Your task to perform on an android device: Search for "macbook pro 15 inch" on target, select the first entry, and add it to the cart. Image 0: 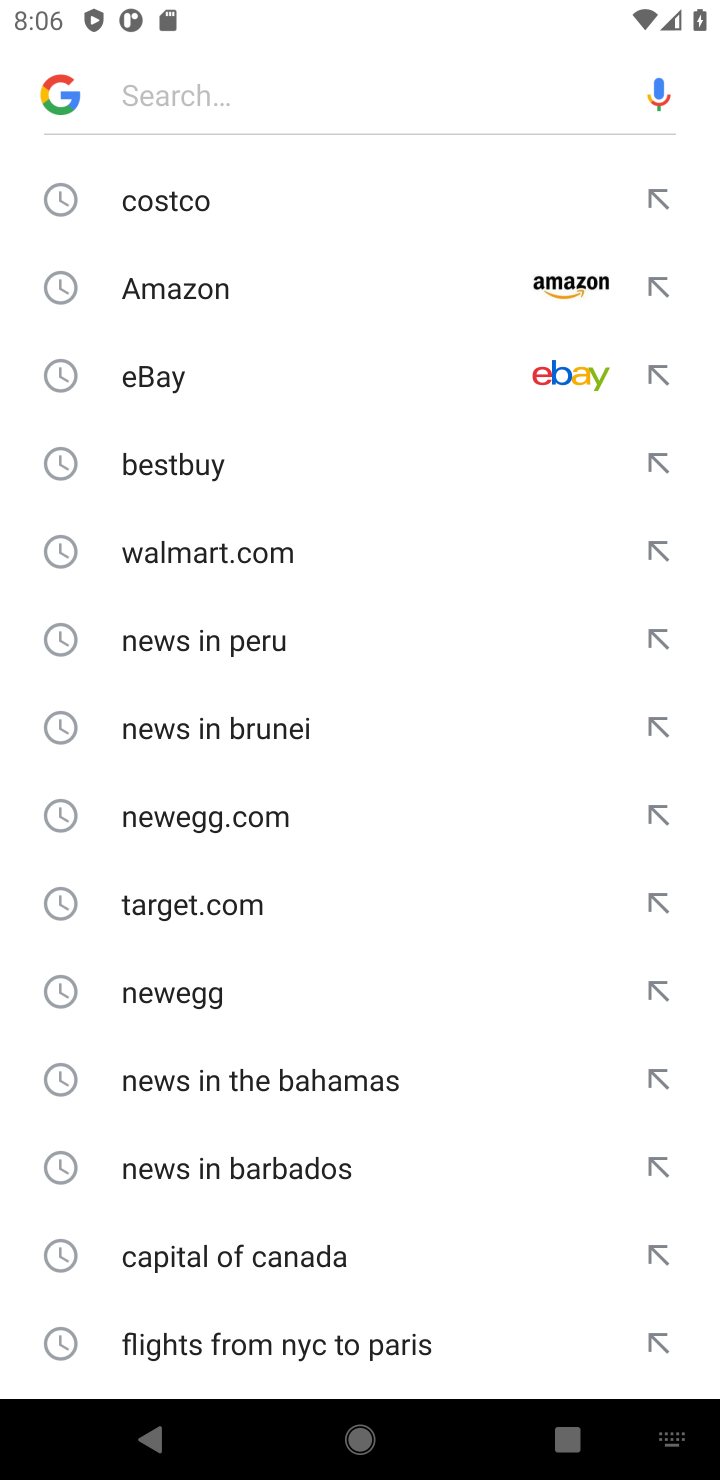
Step 0: click (200, 907)
Your task to perform on an android device: Search for "macbook pro 15 inch" on target, select the first entry, and add it to the cart. Image 1: 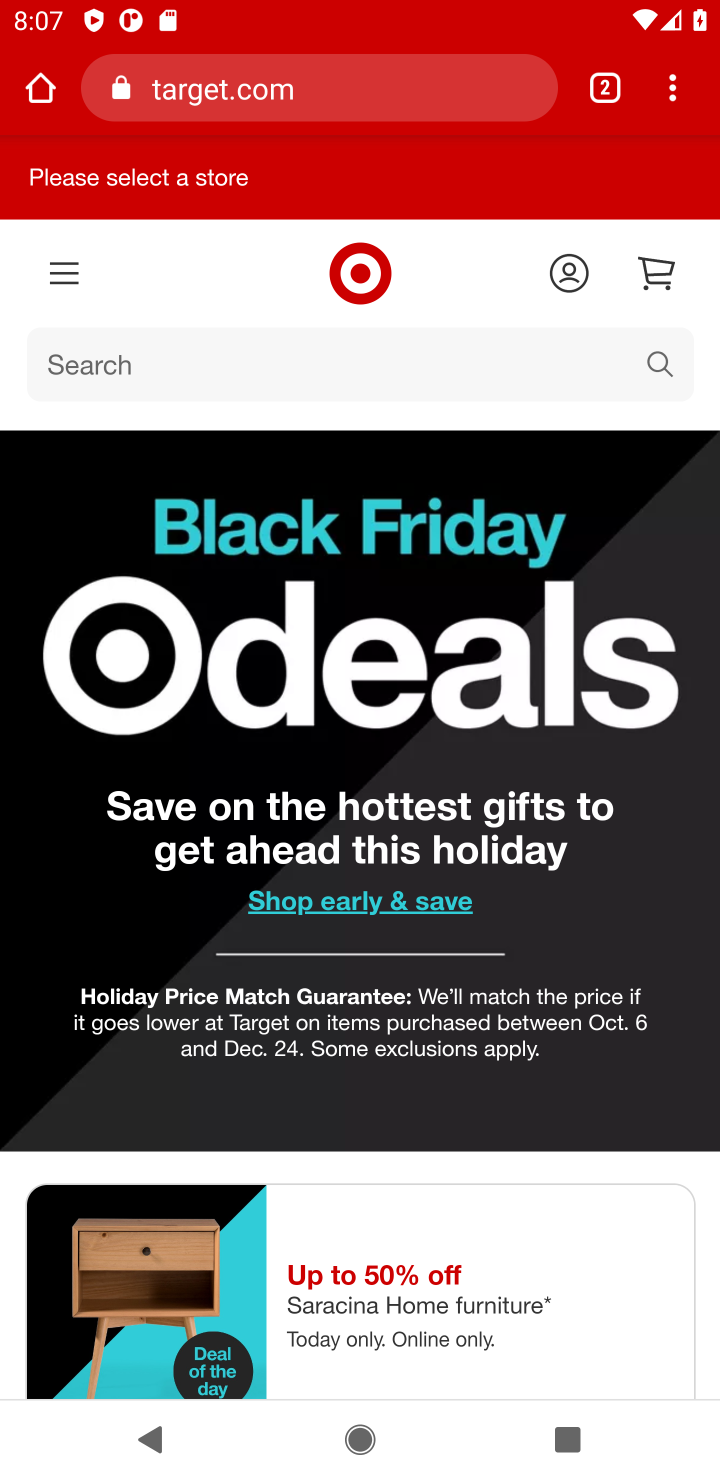
Step 1: click (155, 355)
Your task to perform on an android device: Search for "macbook pro 15 inch" on target, select the first entry, and add it to the cart. Image 2: 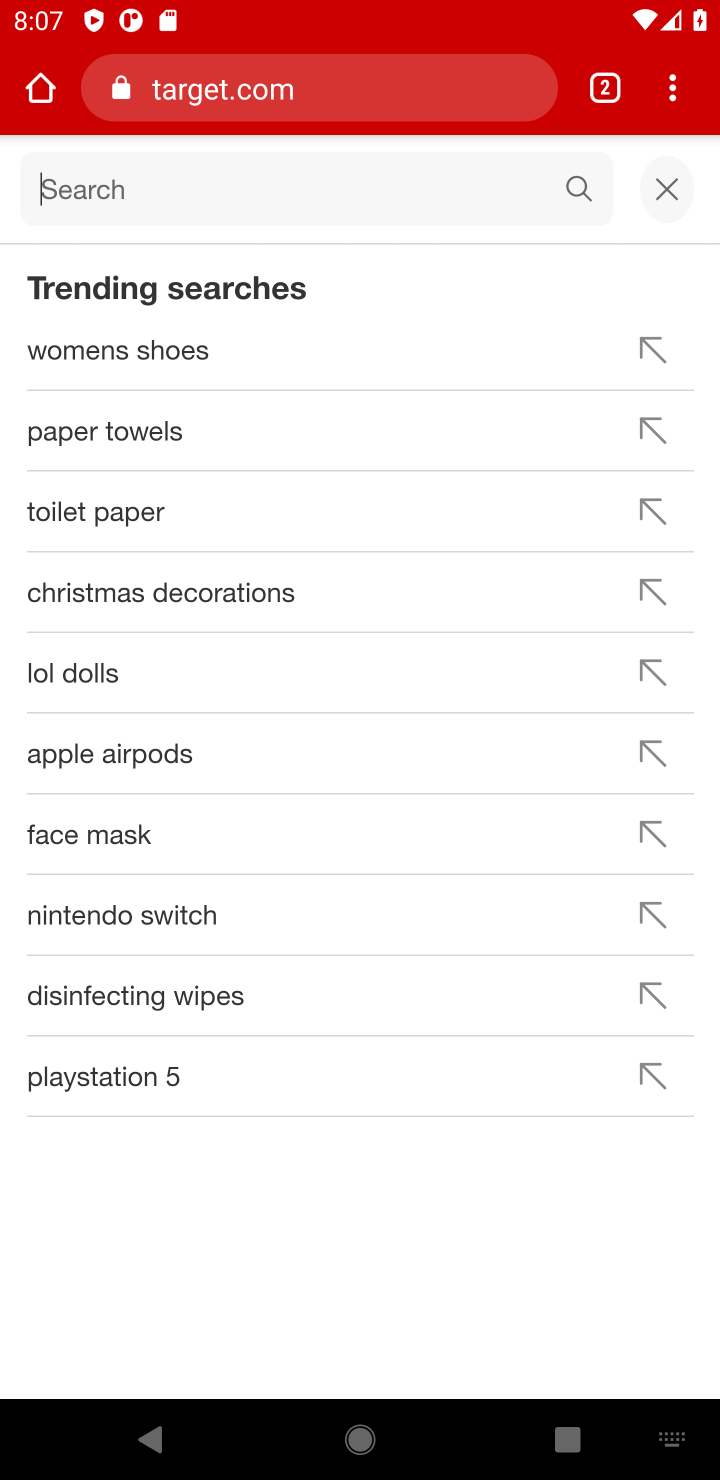
Step 2: type "macbook pro 15 inch"
Your task to perform on an android device: Search for "macbook pro 15 inch" on target, select the first entry, and add it to the cart. Image 3: 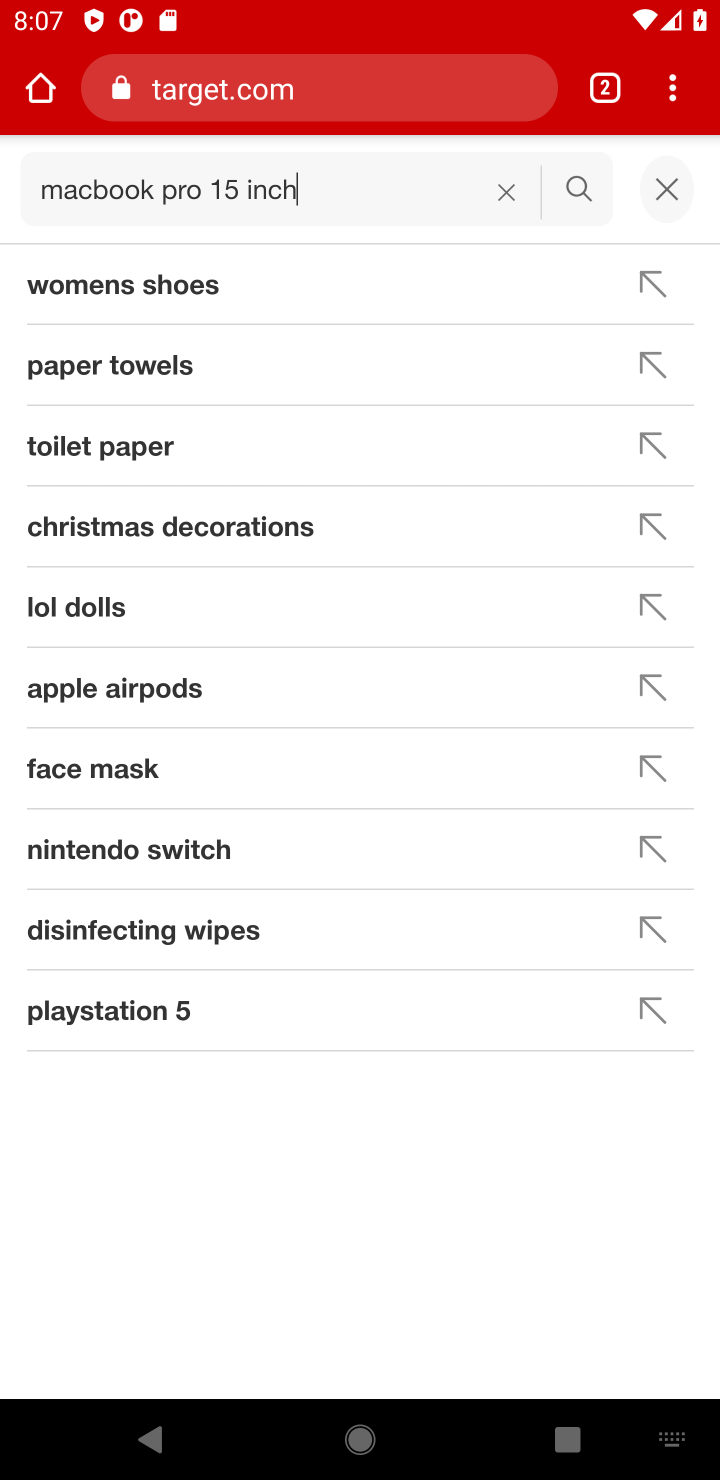
Step 3: press enter
Your task to perform on an android device: Search for "macbook pro 15 inch" on target, select the first entry, and add it to the cart. Image 4: 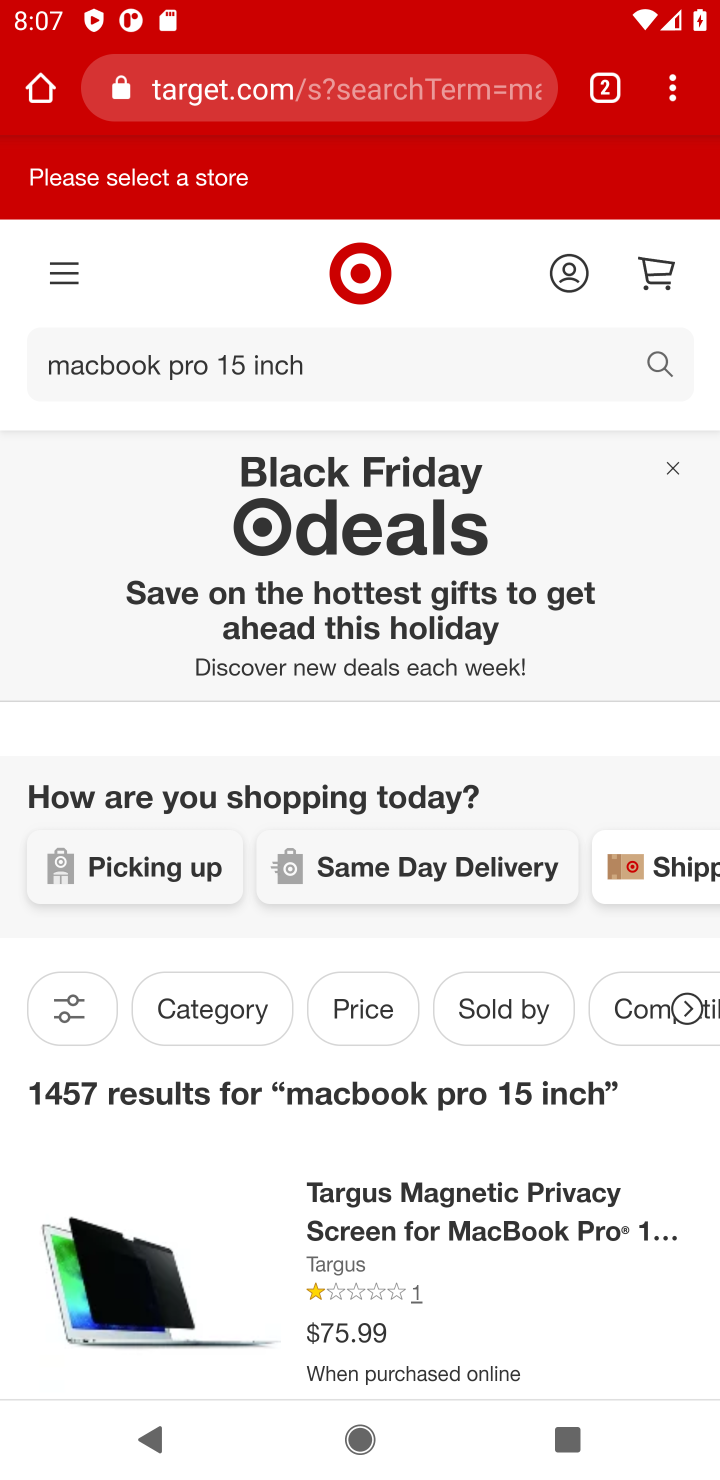
Step 4: drag from (541, 1134) to (608, 858)
Your task to perform on an android device: Search for "macbook pro 15 inch" on target, select the first entry, and add it to the cart. Image 5: 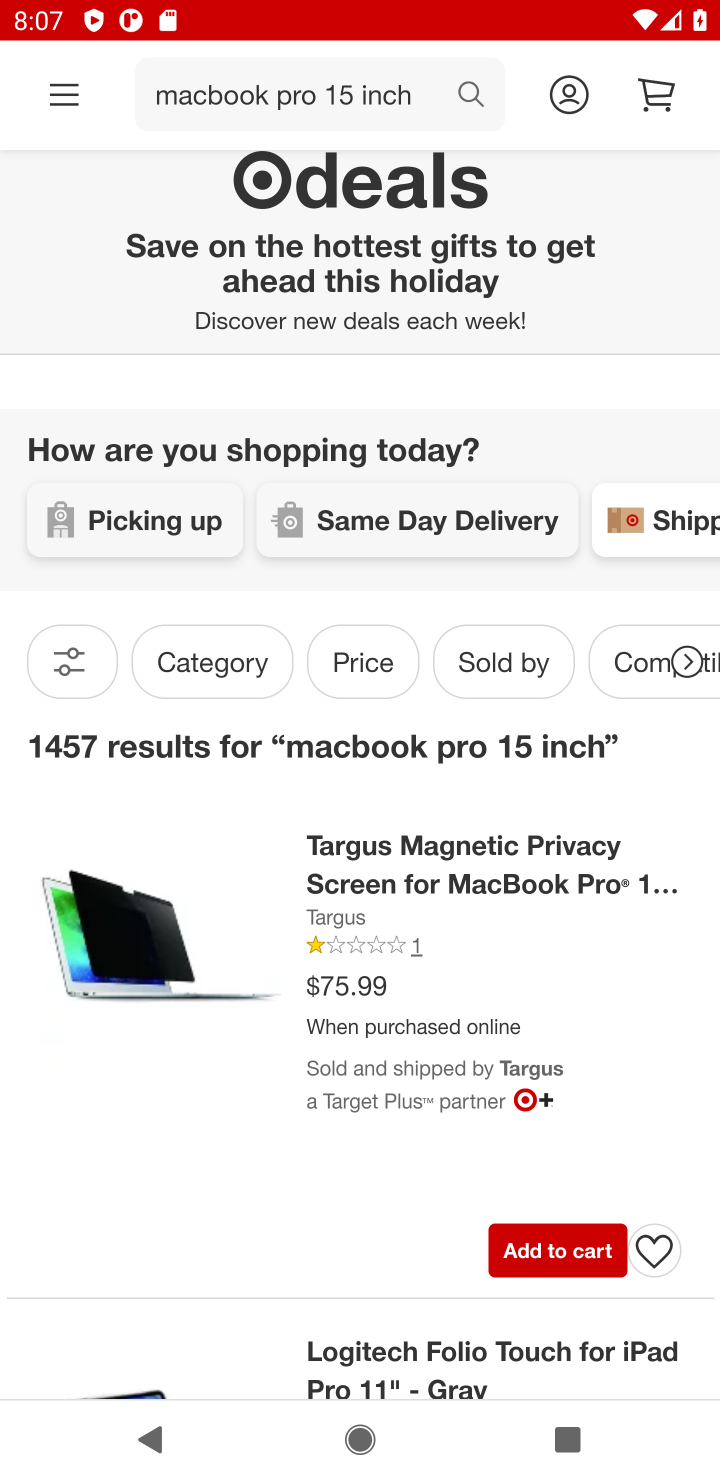
Step 5: click (414, 881)
Your task to perform on an android device: Search for "macbook pro 15 inch" on target, select the first entry, and add it to the cart. Image 6: 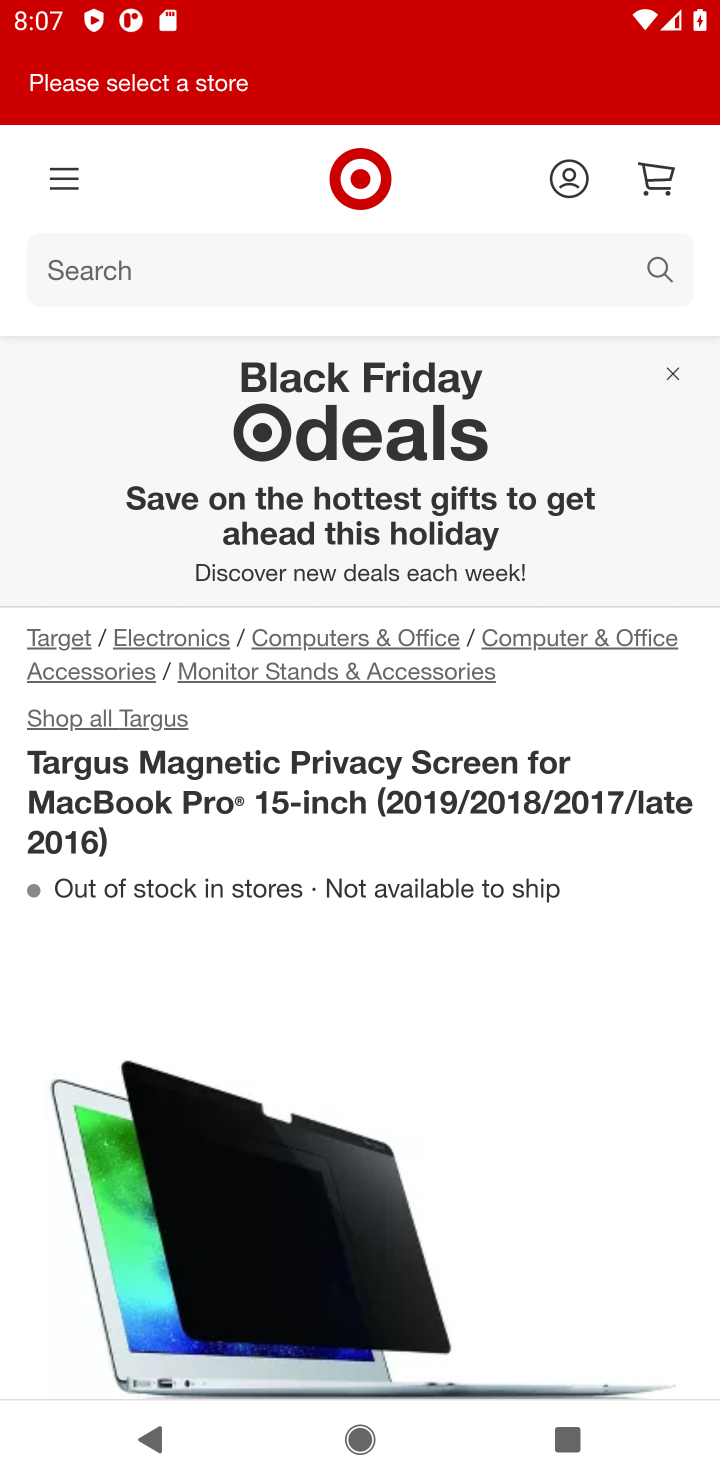
Step 6: drag from (463, 1060) to (629, 361)
Your task to perform on an android device: Search for "macbook pro 15 inch" on target, select the first entry, and add it to the cart. Image 7: 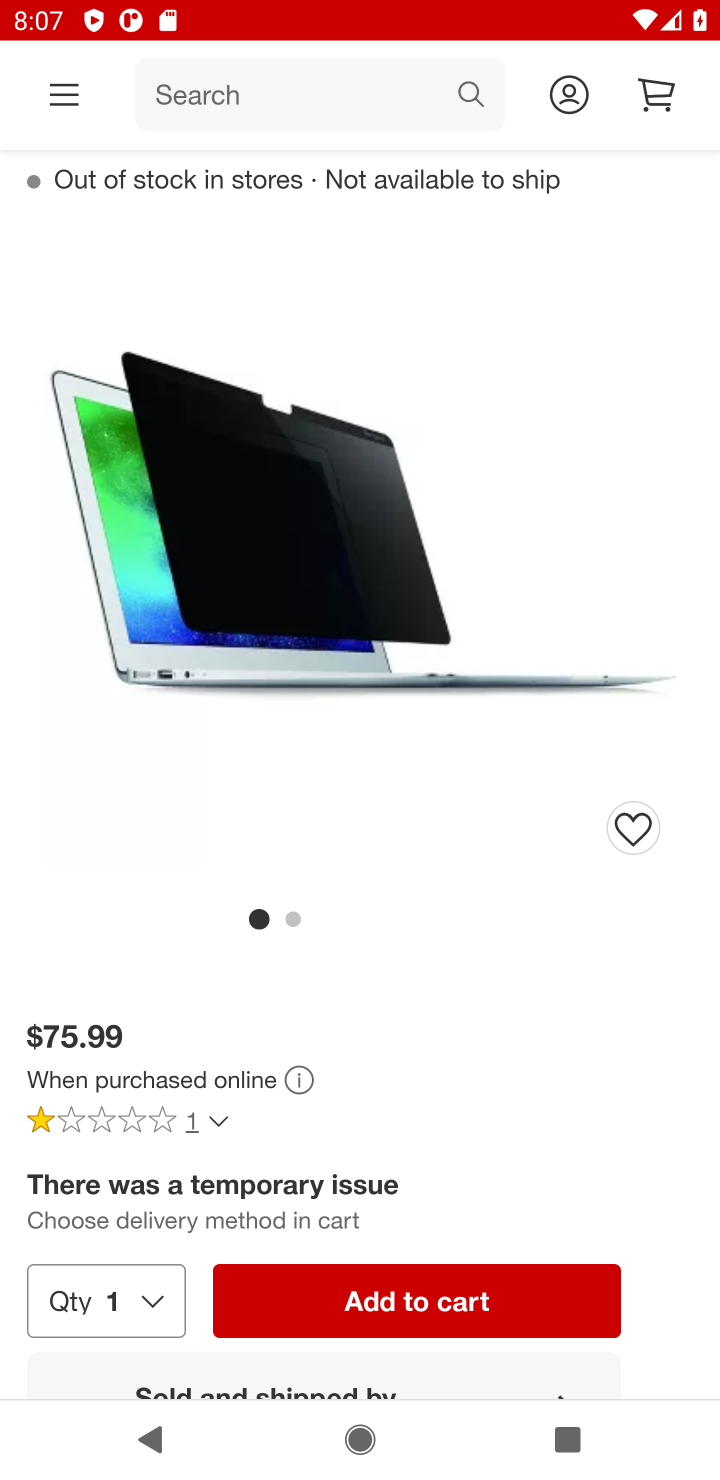
Step 7: click (415, 1303)
Your task to perform on an android device: Search for "macbook pro 15 inch" on target, select the first entry, and add it to the cart. Image 8: 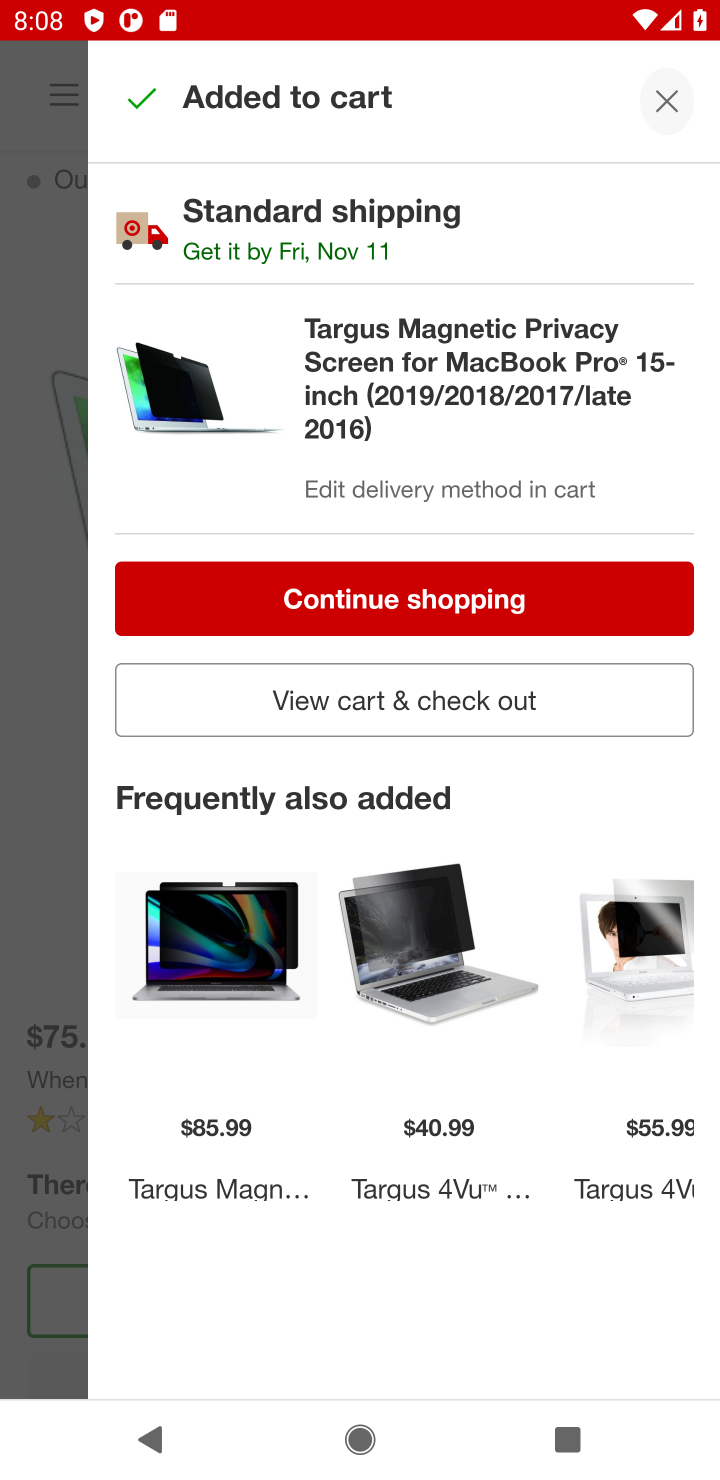
Step 8: click (458, 692)
Your task to perform on an android device: Search for "macbook pro 15 inch" on target, select the first entry, and add it to the cart. Image 9: 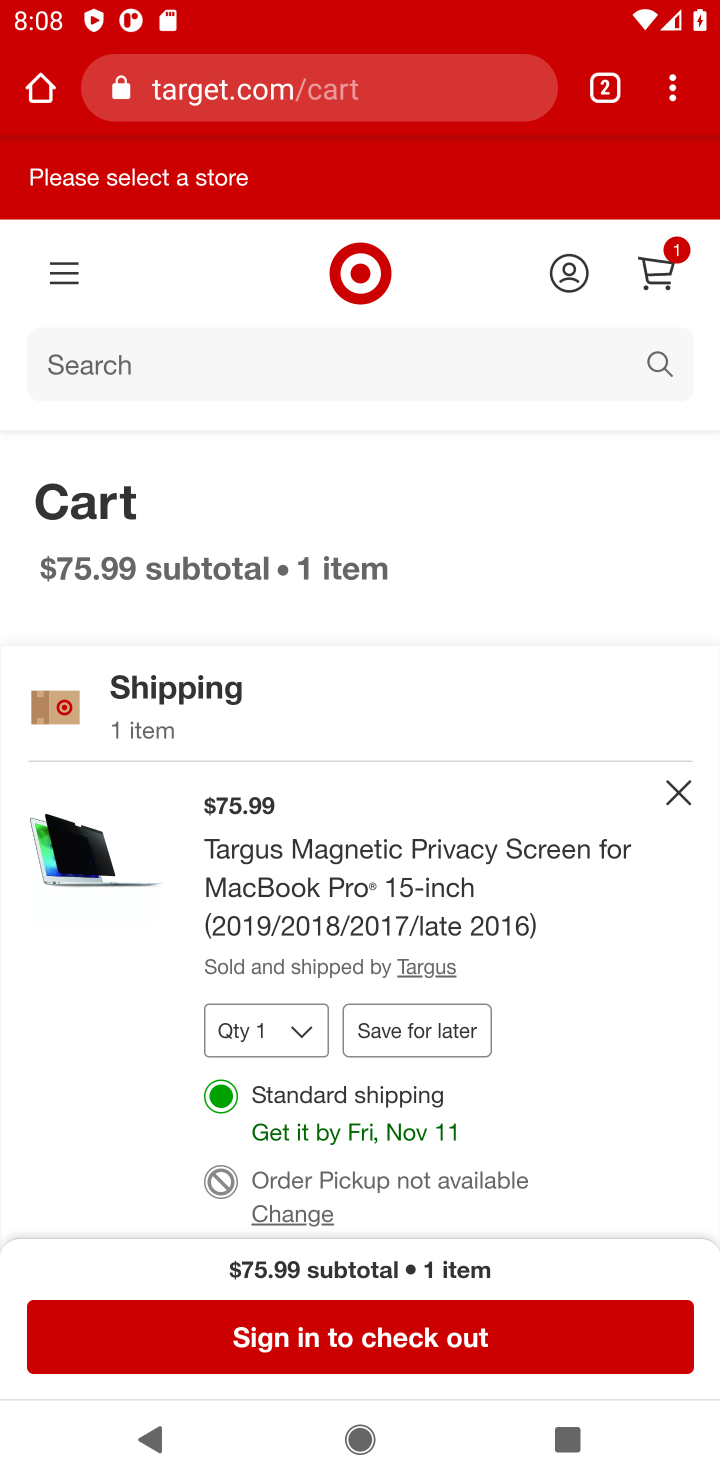
Step 9: task complete